Your task to perform on an android device: turn smart compose on in the gmail app Image 0: 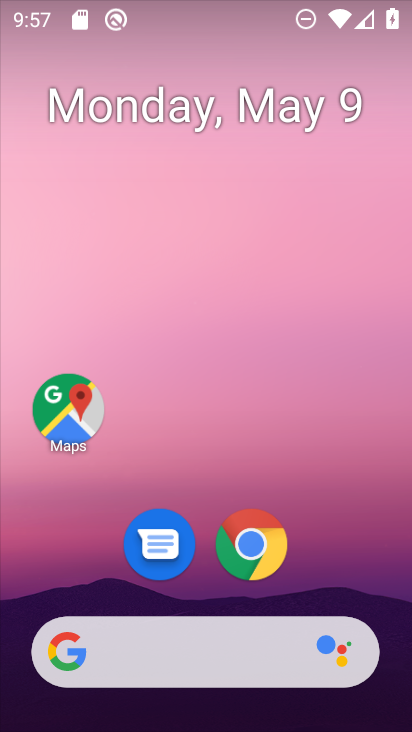
Step 0: drag from (326, 567) to (327, 17)
Your task to perform on an android device: turn smart compose on in the gmail app Image 1: 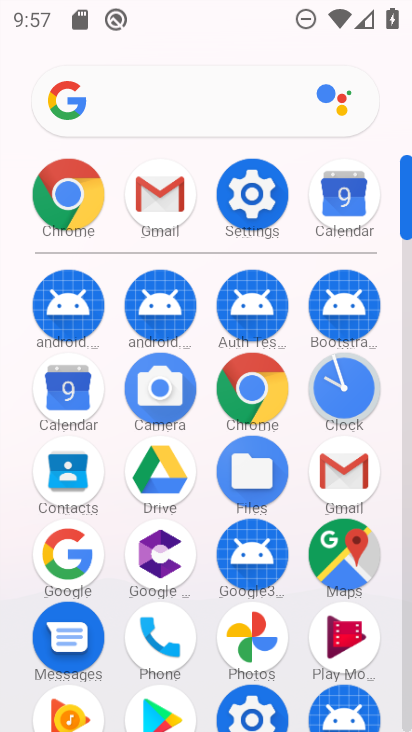
Step 1: click (151, 202)
Your task to perform on an android device: turn smart compose on in the gmail app Image 2: 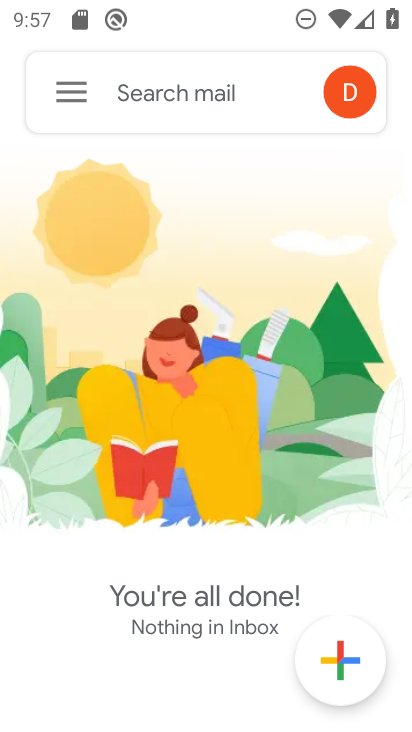
Step 2: click (72, 91)
Your task to perform on an android device: turn smart compose on in the gmail app Image 3: 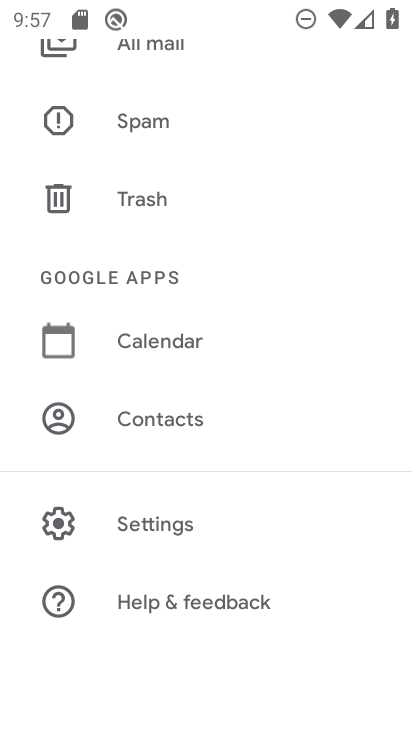
Step 3: click (156, 528)
Your task to perform on an android device: turn smart compose on in the gmail app Image 4: 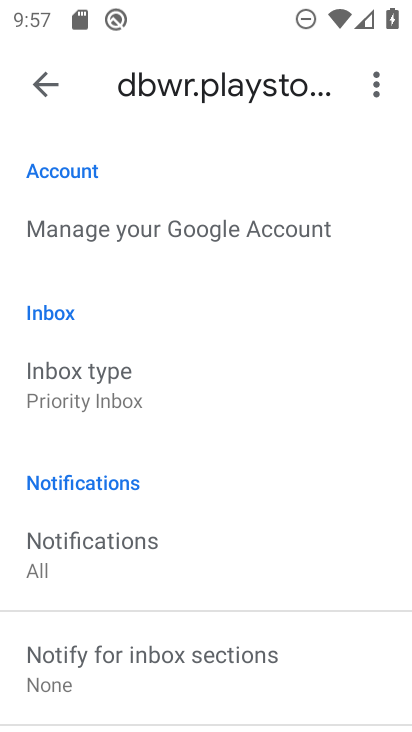
Step 4: task complete